Your task to perform on an android device: Open the calendar and show me this week's events? Image 0: 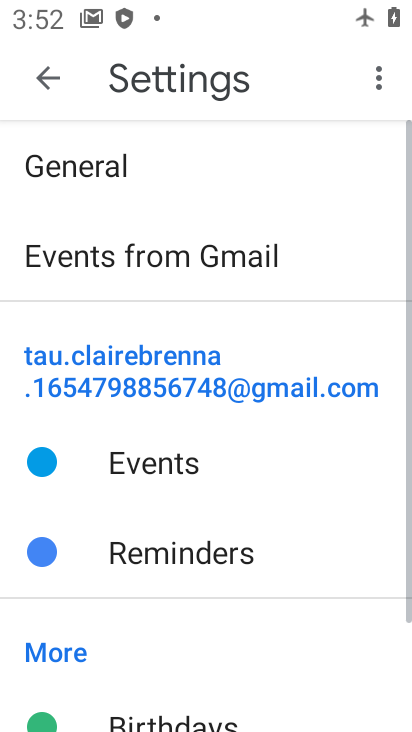
Step 0: click (122, 664)
Your task to perform on an android device: Open the calendar and show me this week's events? Image 1: 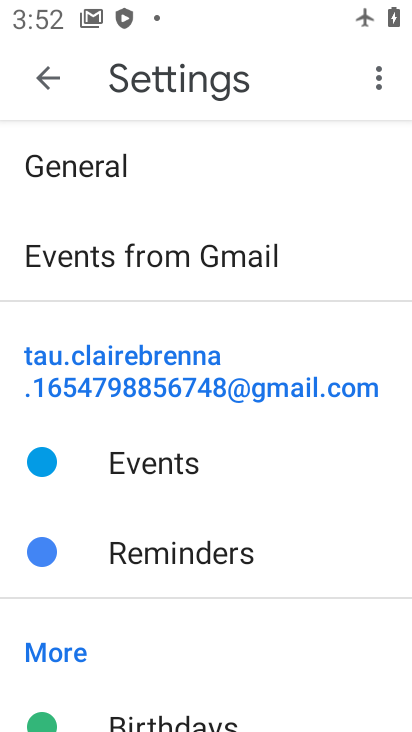
Step 1: press back button
Your task to perform on an android device: Open the calendar and show me this week's events? Image 2: 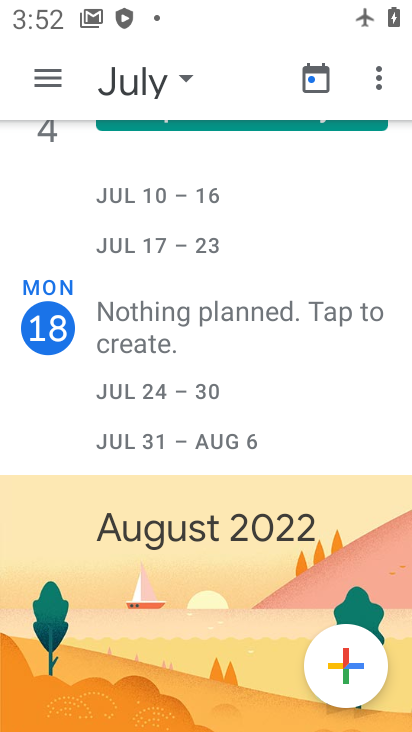
Step 2: click (173, 75)
Your task to perform on an android device: Open the calendar and show me this week's events? Image 3: 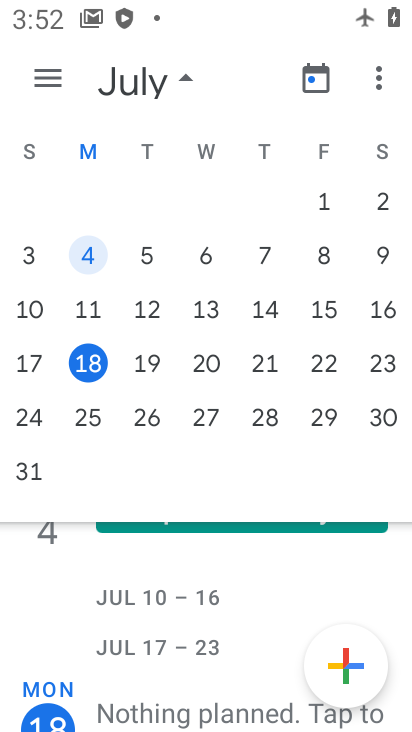
Step 3: click (91, 367)
Your task to perform on an android device: Open the calendar and show me this week's events? Image 4: 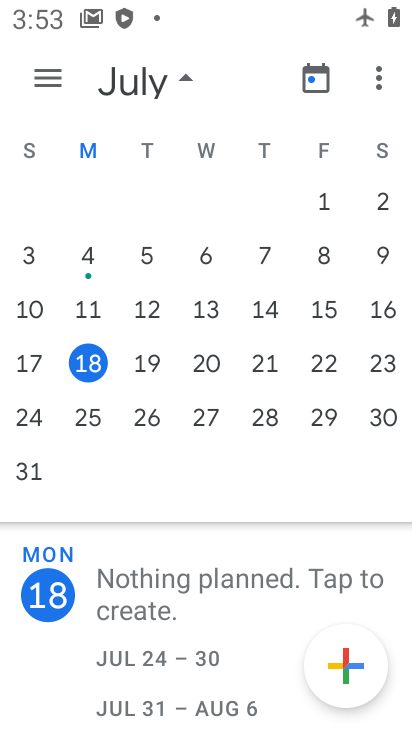
Step 4: drag from (135, 684) to (151, 513)
Your task to perform on an android device: Open the calendar and show me this week's events? Image 5: 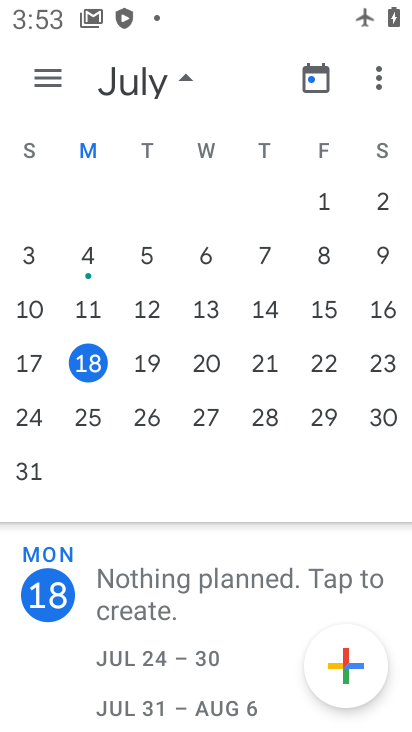
Step 5: click (87, 371)
Your task to perform on an android device: Open the calendar and show me this week's events? Image 6: 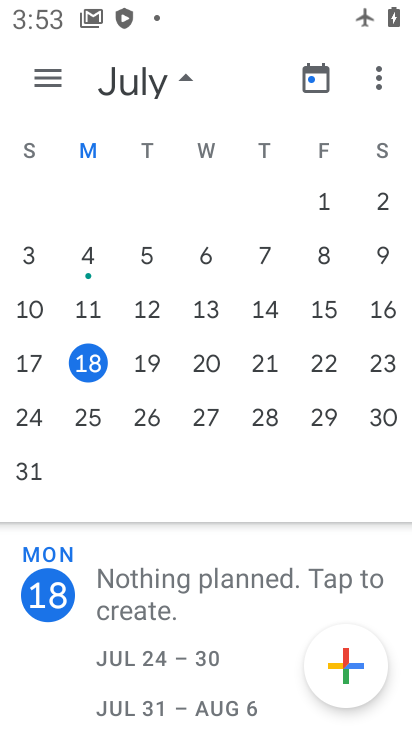
Step 6: task complete